Your task to perform on an android device: Go to Android settings Image 0: 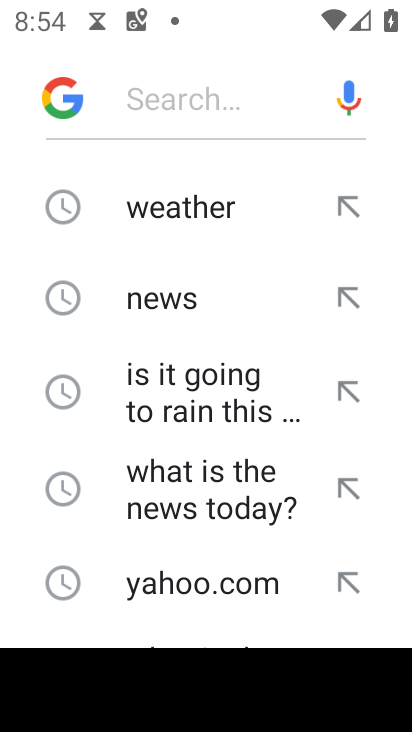
Step 0: press home button
Your task to perform on an android device: Go to Android settings Image 1: 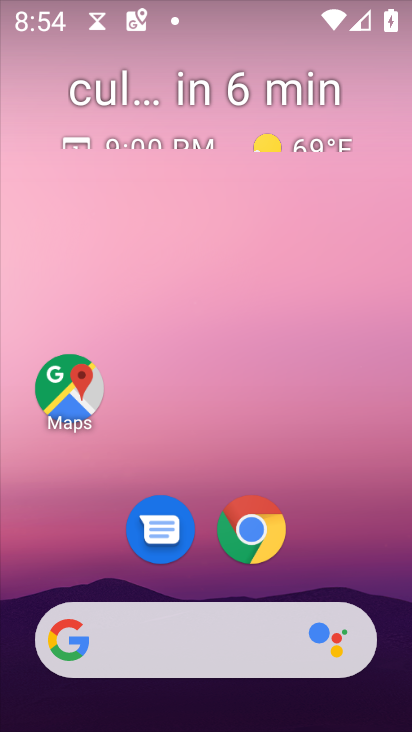
Step 1: drag from (337, 532) to (301, 239)
Your task to perform on an android device: Go to Android settings Image 2: 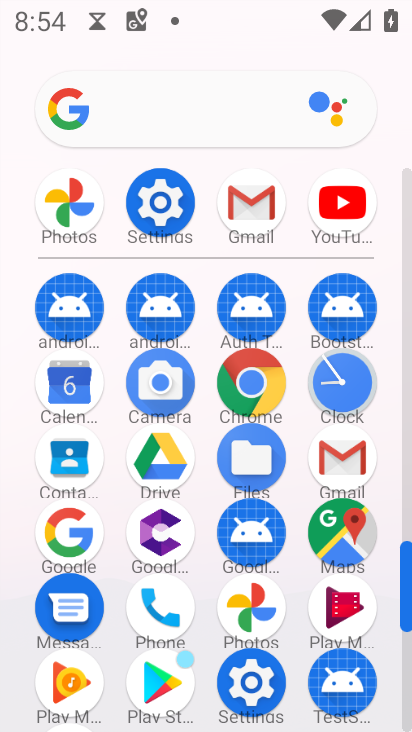
Step 2: click (152, 186)
Your task to perform on an android device: Go to Android settings Image 3: 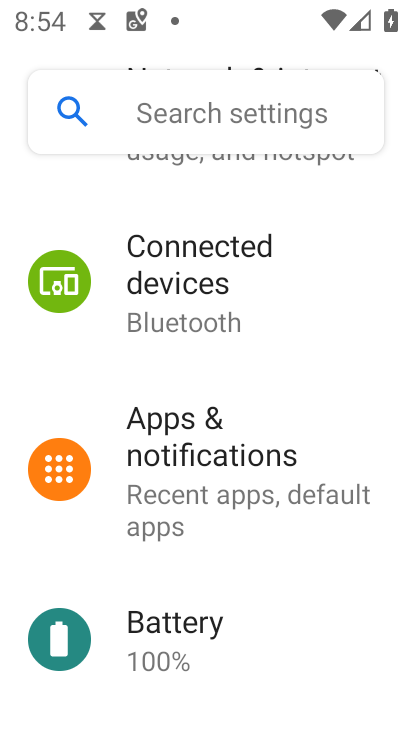
Step 3: task complete